Your task to perform on an android device: check android version Image 0: 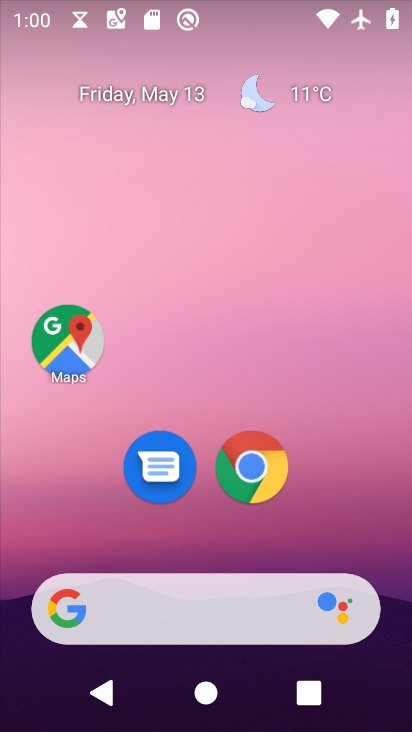
Step 0: drag from (275, 237) to (232, 54)
Your task to perform on an android device: check android version Image 1: 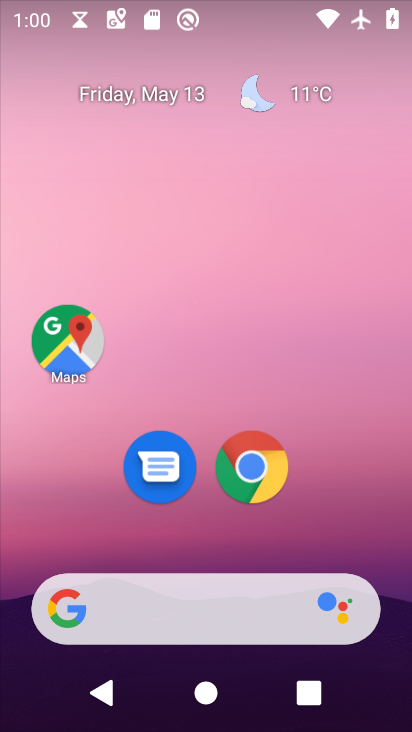
Step 1: drag from (211, 534) to (204, 12)
Your task to perform on an android device: check android version Image 2: 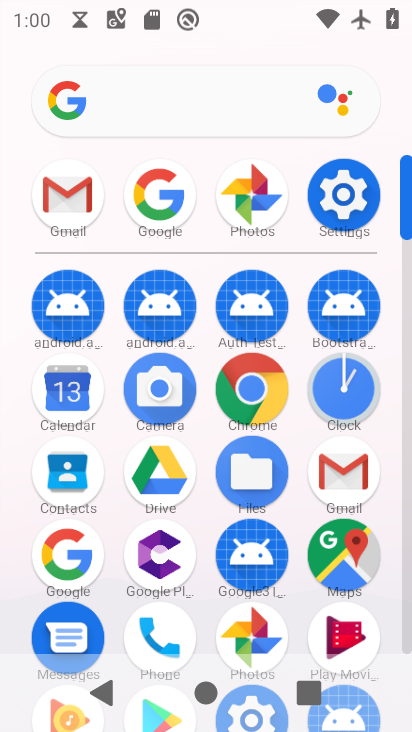
Step 2: click (352, 196)
Your task to perform on an android device: check android version Image 3: 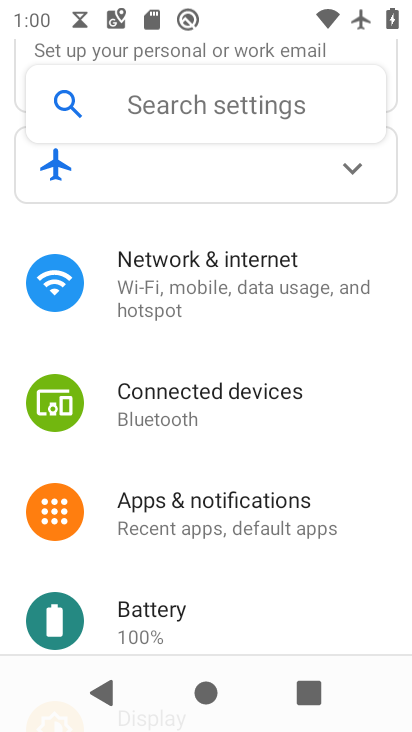
Step 3: drag from (283, 596) to (193, 79)
Your task to perform on an android device: check android version Image 4: 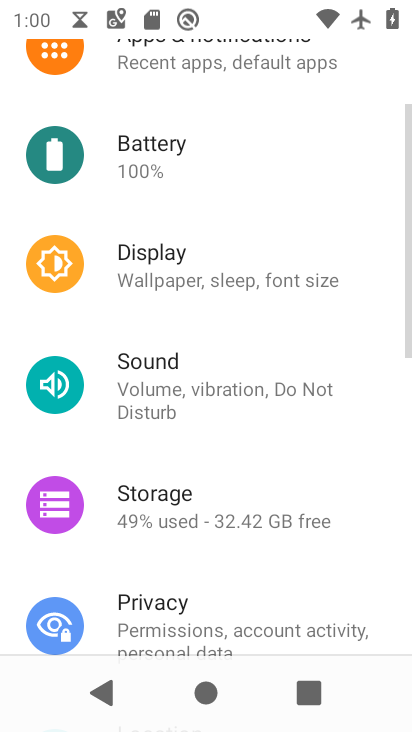
Step 4: drag from (244, 565) to (217, 133)
Your task to perform on an android device: check android version Image 5: 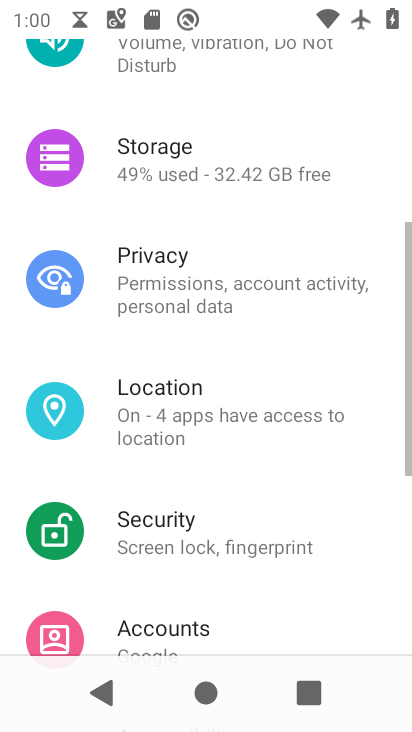
Step 5: drag from (190, 579) to (253, 137)
Your task to perform on an android device: check android version Image 6: 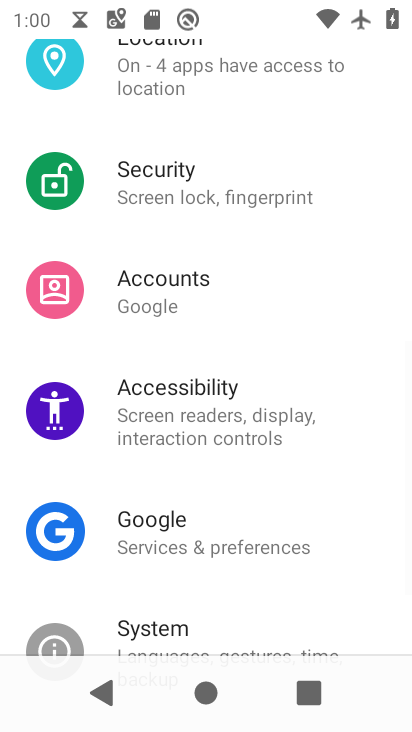
Step 6: drag from (200, 561) to (215, 149)
Your task to perform on an android device: check android version Image 7: 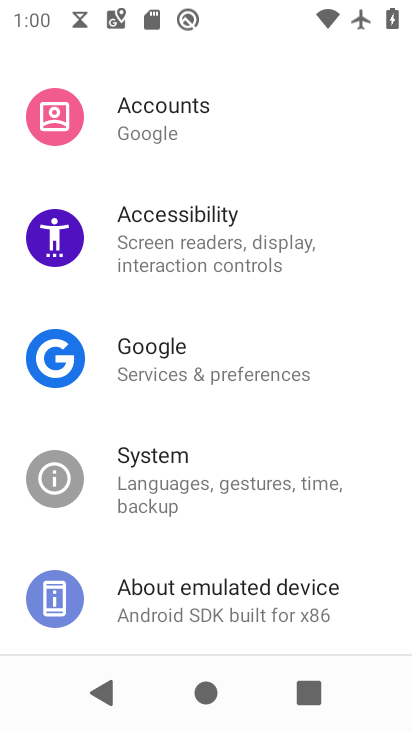
Step 7: click (212, 604)
Your task to perform on an android device: check android version Image 8: 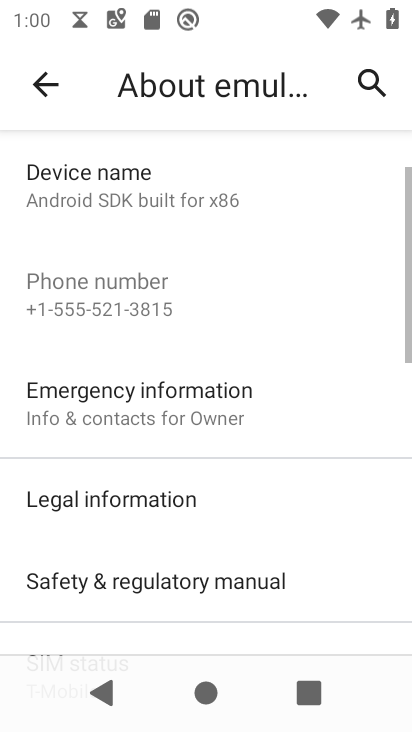
Step 8: drag from (201, 275) to (181, 103)
Your task to perform on an android device: check android version Image 9: 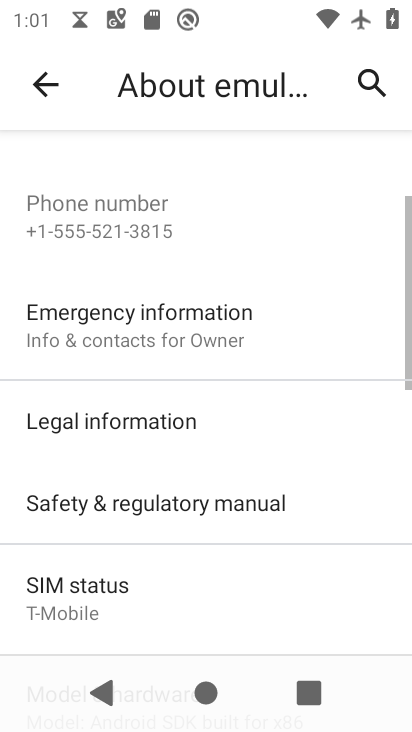
Step 9: drag from (205, 587) to (188, 231)
Your task to perform on an android device: check android version Image 10: 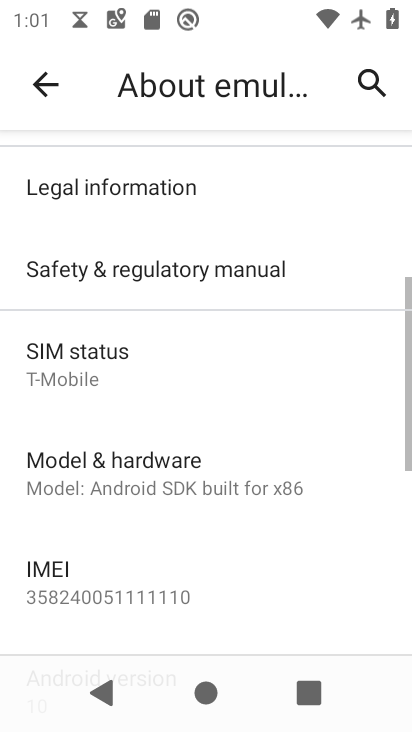
Step 10: drag from (204, 564) to (178, 231)
Your task to perform on an android device: check android version Image 11: 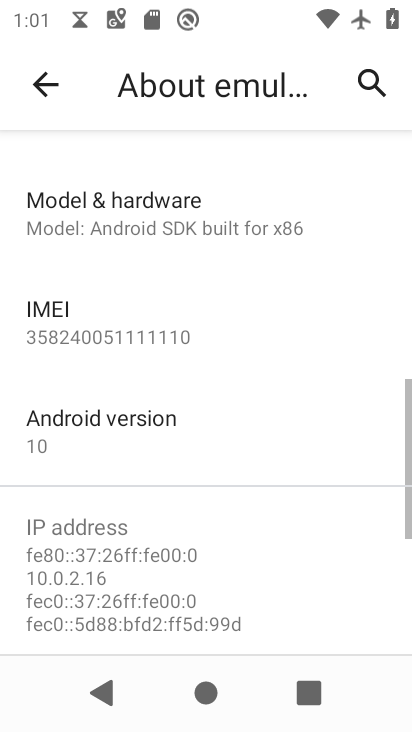
Step 11: click (164, 459)
Your task to perform on an android device: check android version Image 12: 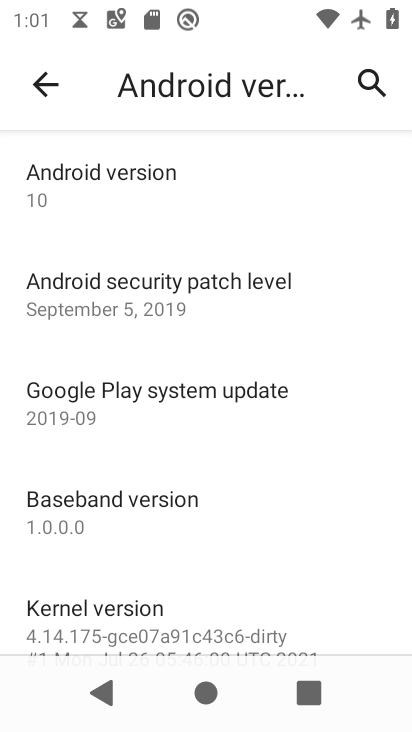
Step 12: task complete